Your task to perform on an android device: stop showing notifications on the lock screen Image 0: 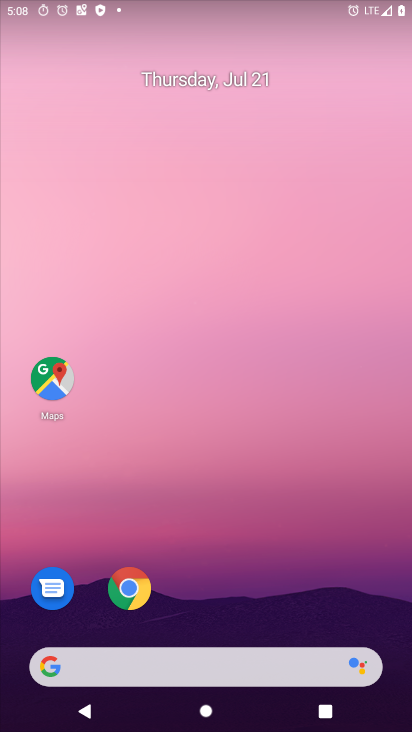
Step 0: drag from (226, 626) to (215, 98)
Your task to perform on an android device: stop showing notifications on the lock screen Image 1: 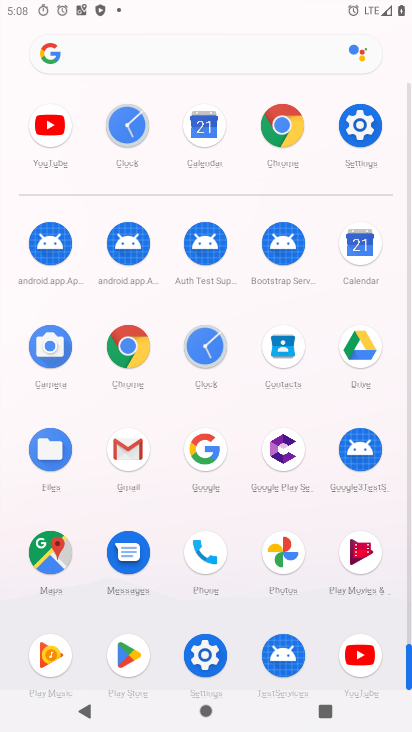
Step 1: click (194, 643)
Your task to perform on an android device: stop showing notifications on the lock screen Image 2: 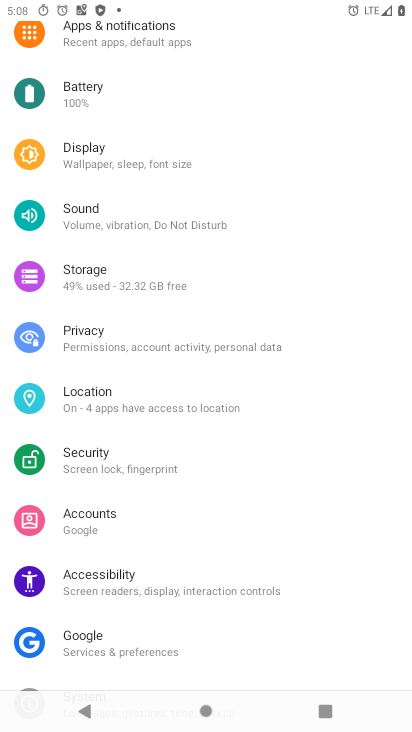
Step 2: click (151, 41)
Your task to perform on an android device: stop showing notifications on the lock screen Image 3: 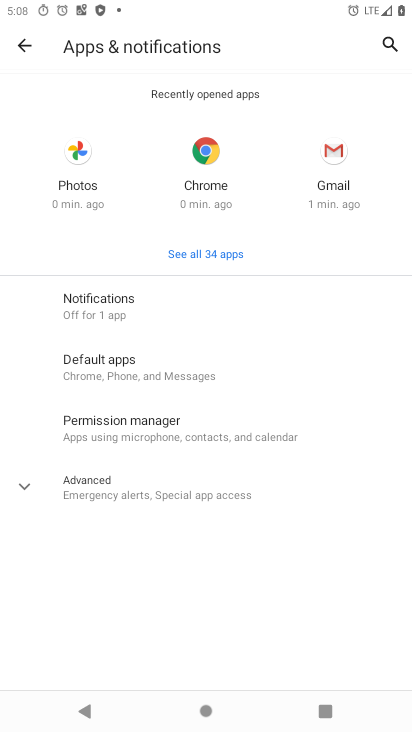
Step 3: click (92, 296)
Your task to perform on an android device: stop showing notifications on the lock screen Image 4: 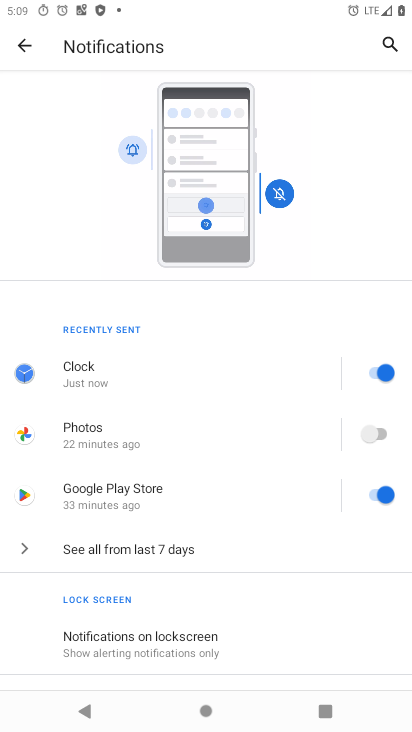
Step 4: click (173, 633)
Your task to perform on an android device: stop showing notifications on the lock screen Image 5: 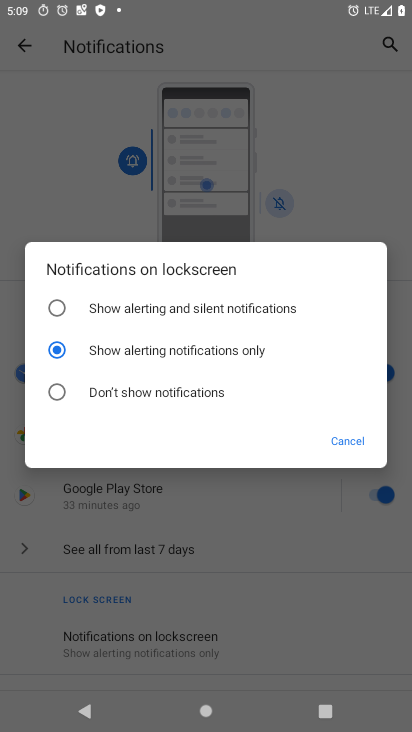
Step 5: click (117, 381)
Your task to perform on an android device: stop showing notifications on the lock screen Image 6: 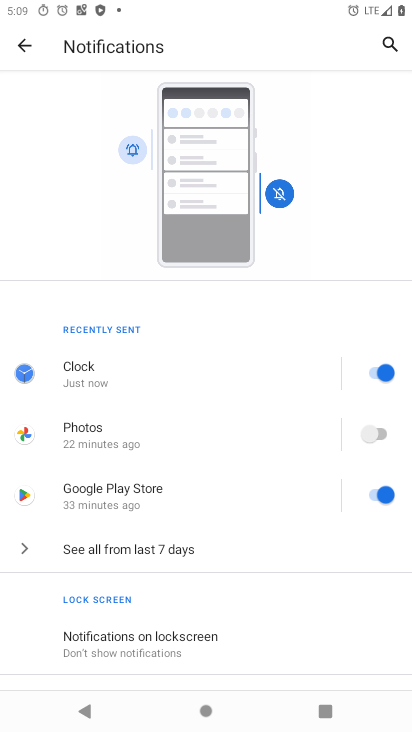
Step 6: task complete